Your task to perform on an android device: turn off data saver in the chrome app Image 0: 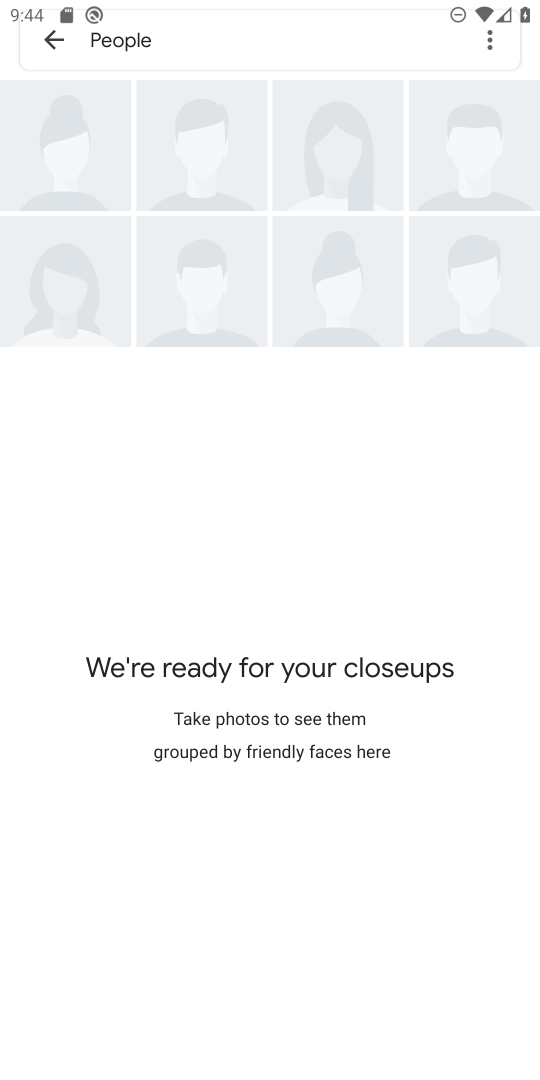
Step 0: press home button
Your task to perform on an android device: turn off data saver in the chrome app Image 1: 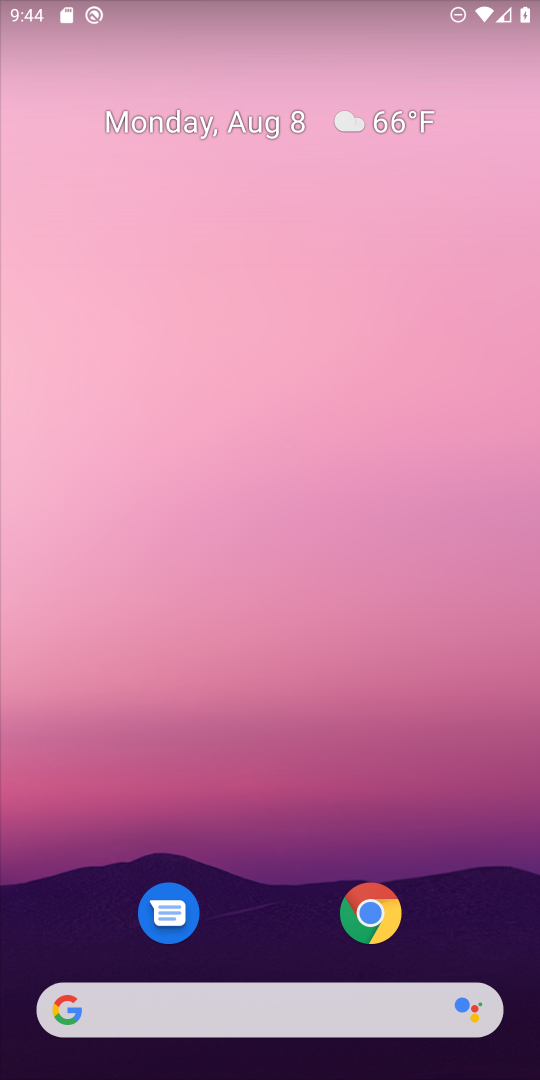
Step 1: click (368, 909)
Your task to perform on an android device: turn off data saver in the chrome app Image 2: 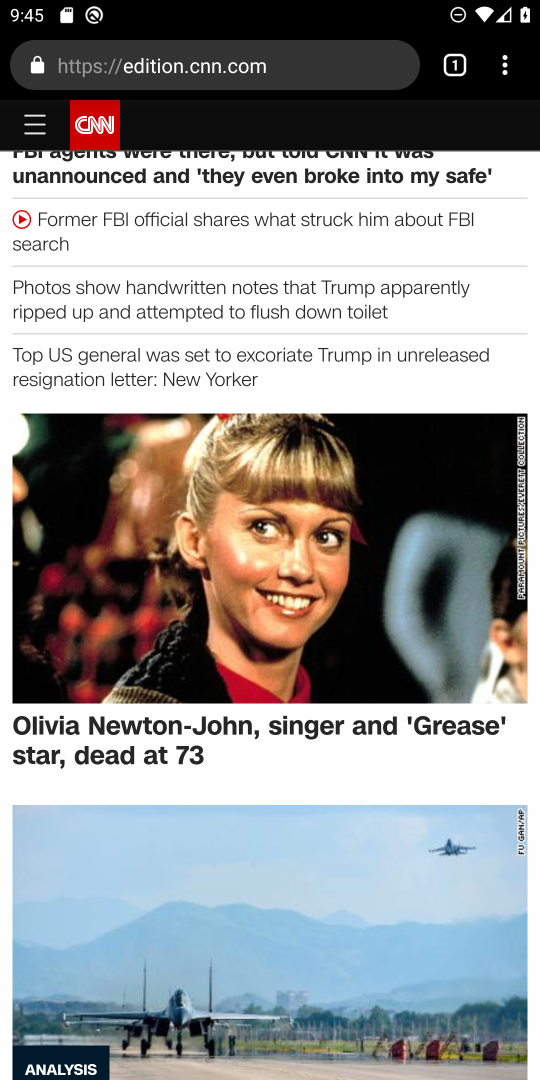
Step 2: drag from (508, 64) to (311, 790)
Your task to perform on an android device: turn off data saver in the chrome app Image 3: 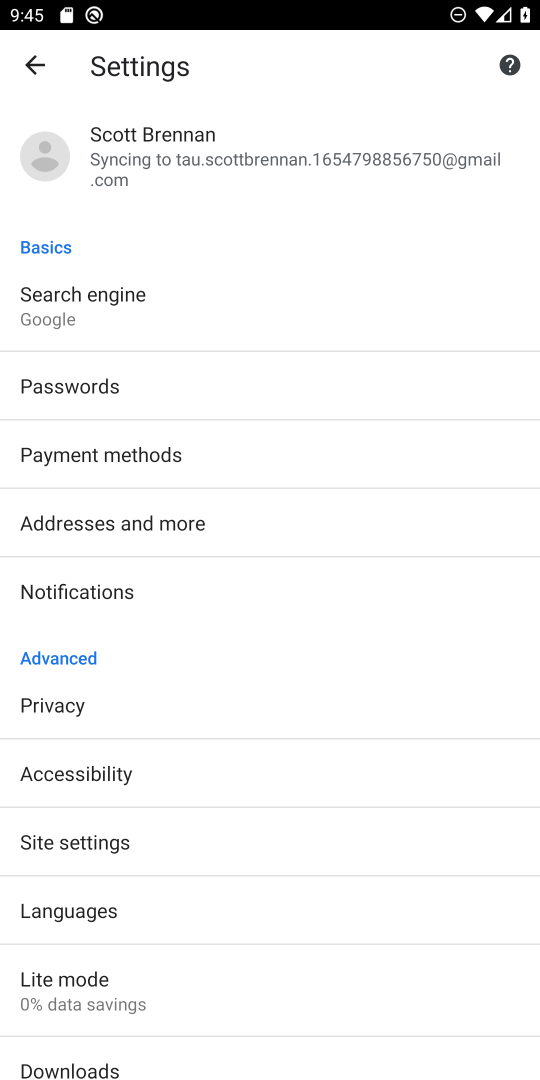
Step 3: drag from (146, 834) to (362, 574)
Your task to perform on an android device: turn off data saver in the chrome app Image 4: 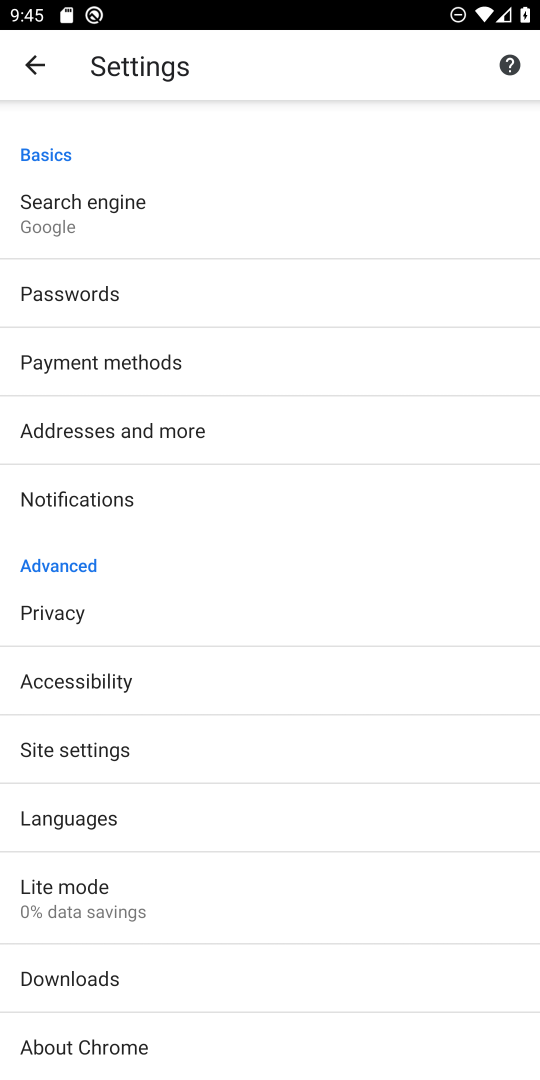
Step 4: drag from (131, 844) to (368, 507)
Your task to perform on an android device: turn off data saver in the chrome app Image 5: 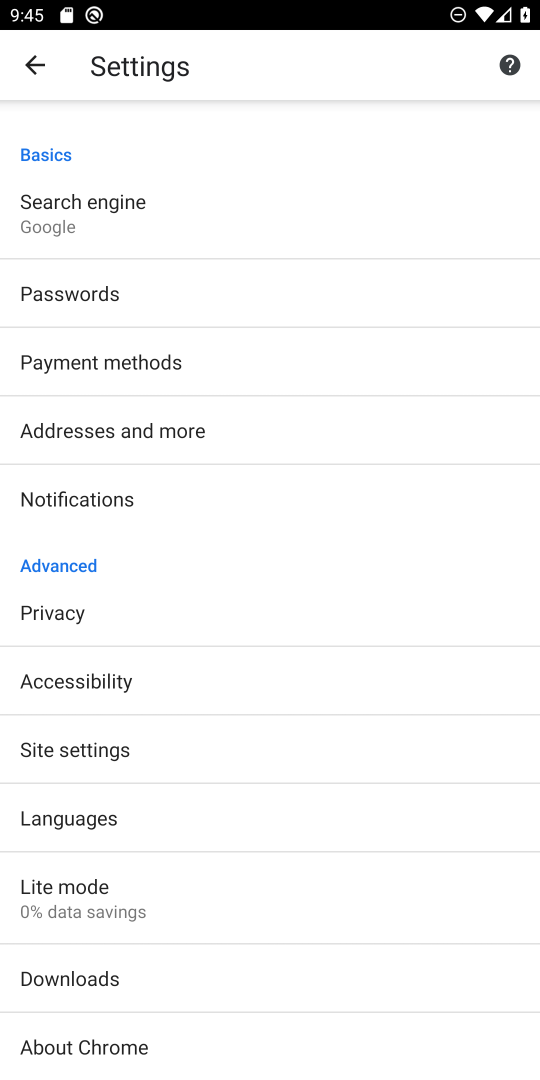
Step 5: click (124, 915)
Your task to perform on an android device: turn off data saver in the chrome app Image 6: 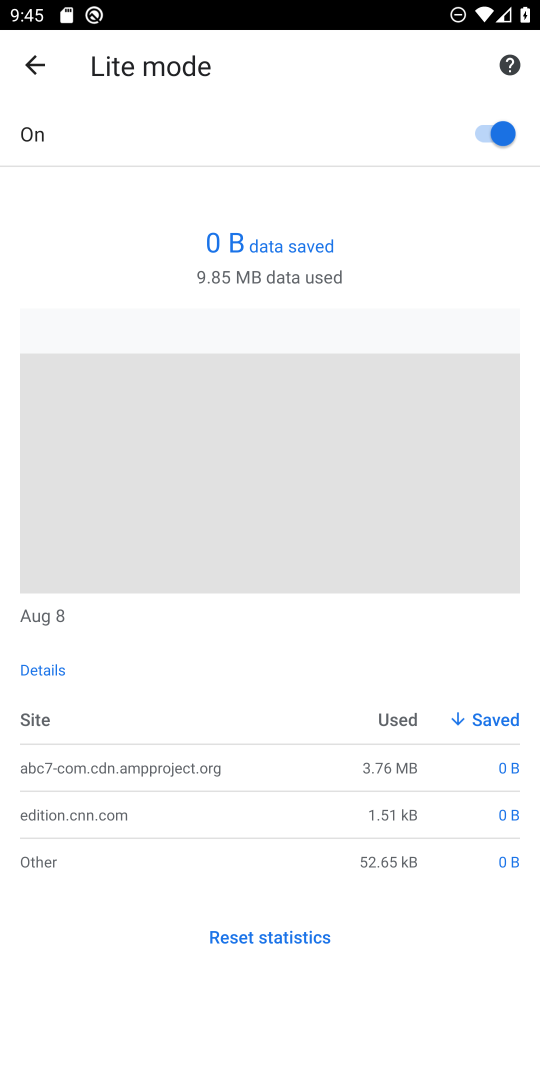
Step 6: click (488, 136)
Your task to perform on an android device: turn off data saver in the chrome app Image 7: 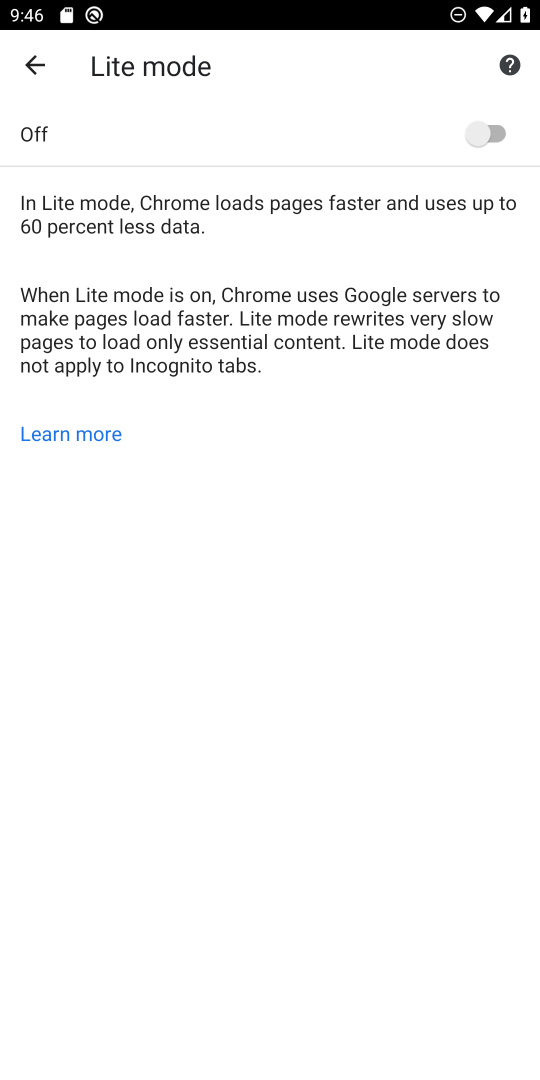
Step 7: task complete